Your task to perform on an android device: Search for seafood restaurants on Google Maps Image 0: 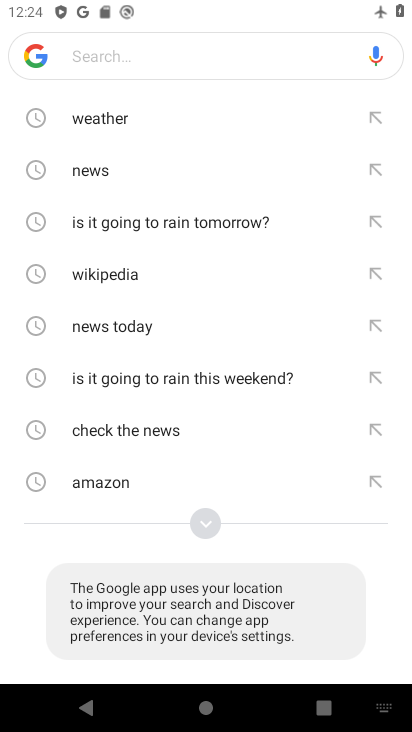
Step 0: press home button
Your task to perform on an android device: Search for seafood restaurants on Google Maps Image 1: 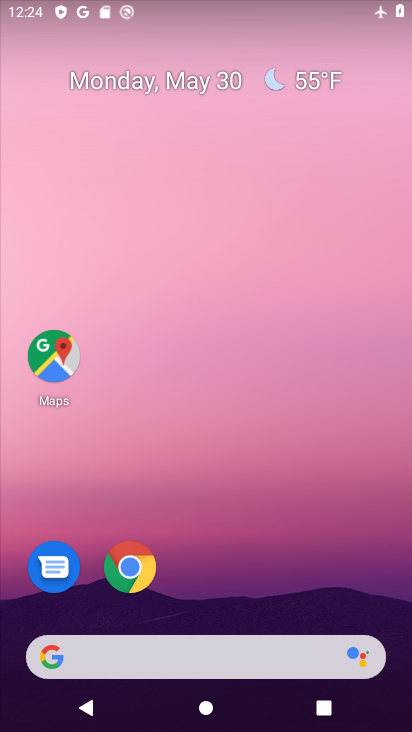
Step 1: click (53, 347)
Your task to perform on an android device: Search for seafood restaurants on Google Maps Image 2: 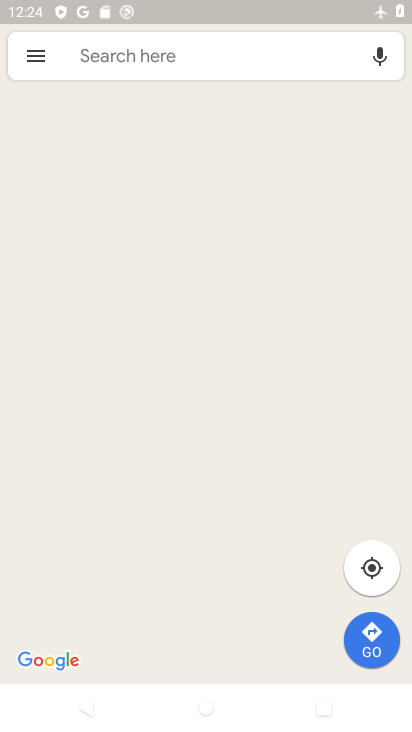
Step 2: click (118, 49)
Your task to perform on an android device: Search for seafood restaurants on Google Maps Image 3: 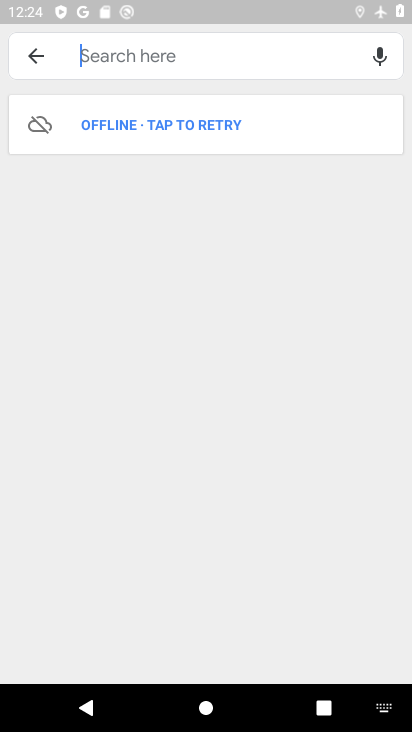
Step 3: type "seafood"
Your task to perform on an android device: Search for seafood restaurants on Google Maps Image 4: 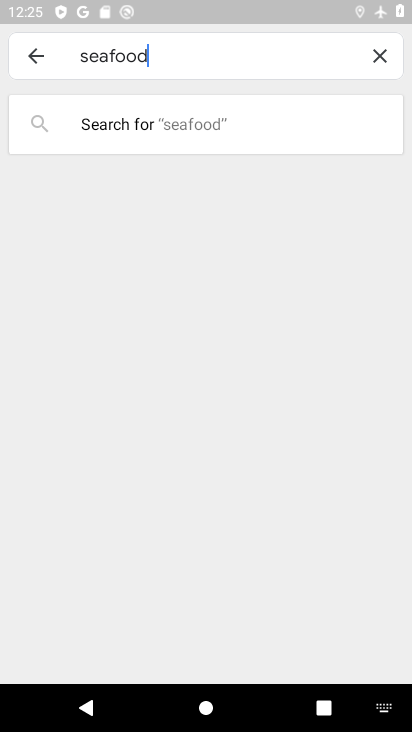
Step 4: click (206, 129)
Your task to perform on an android device: Search for seafood restaurants on Google Maps Image 5: 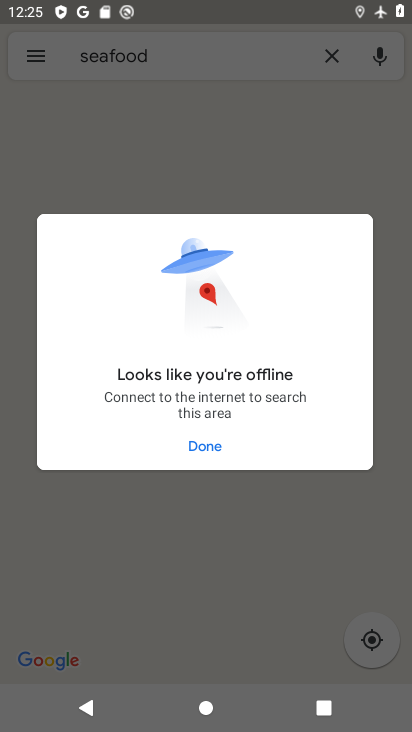
Step 5: task complete